Your task to perform on an android device: Clear all items from cart on ebay. Search for "lg ultragear" on ebay, select the first entry, add it to the cart, then select checkout. Image 0: 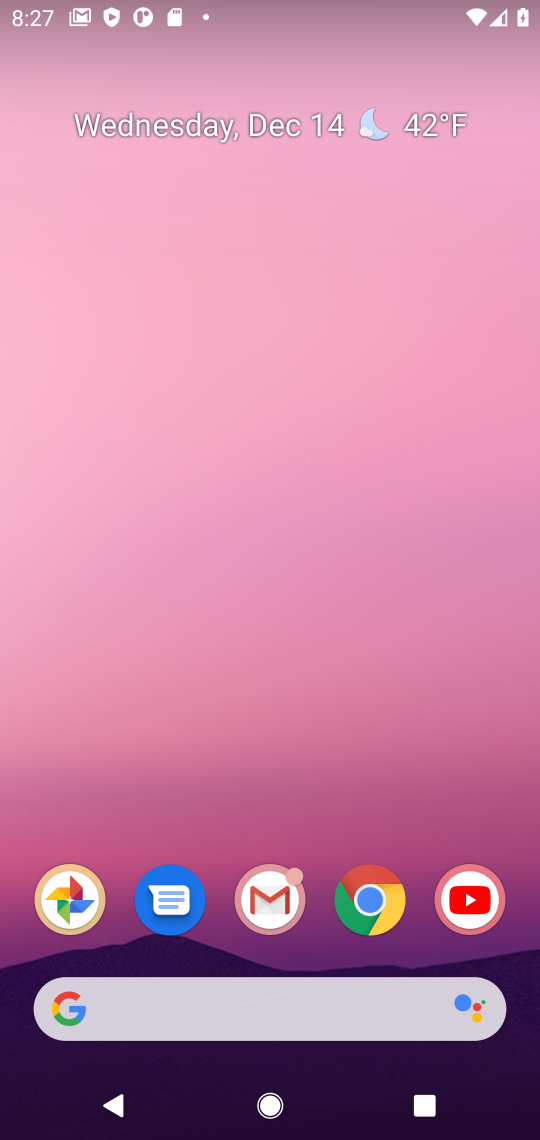
Step 0: click (369, 900)
Your task to perform on an android device: Clear all items from cart on ebay. Search for "lg ultragear" on ebay, select the first entry, add it to the cart, then select checkout. Image 1: 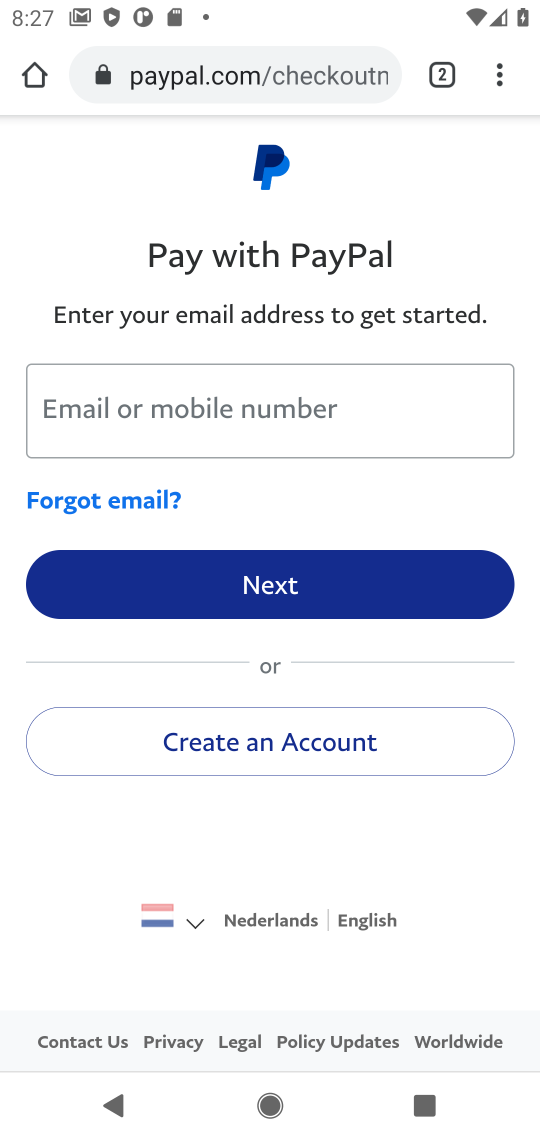
Step 1: click (211, 79)
Your task to perform on an android device: Clear all items from cart on ebay. Search for "lg ultragear" on ebay, select the first entry, add it to the cart, then select checkout. Image 2: 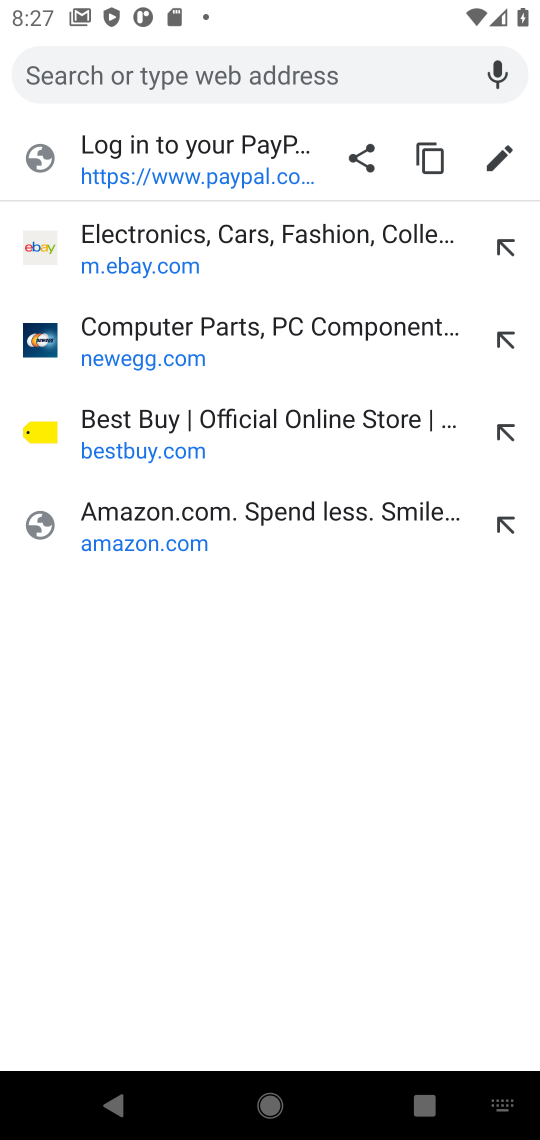
Step 2: click (145, 256)
Your task to perform on an android device: Clear all items from cart on ebay. Search for "lg ultragear" on ebay, select the first entry, add it to the cart, then select checkout. Image 3: 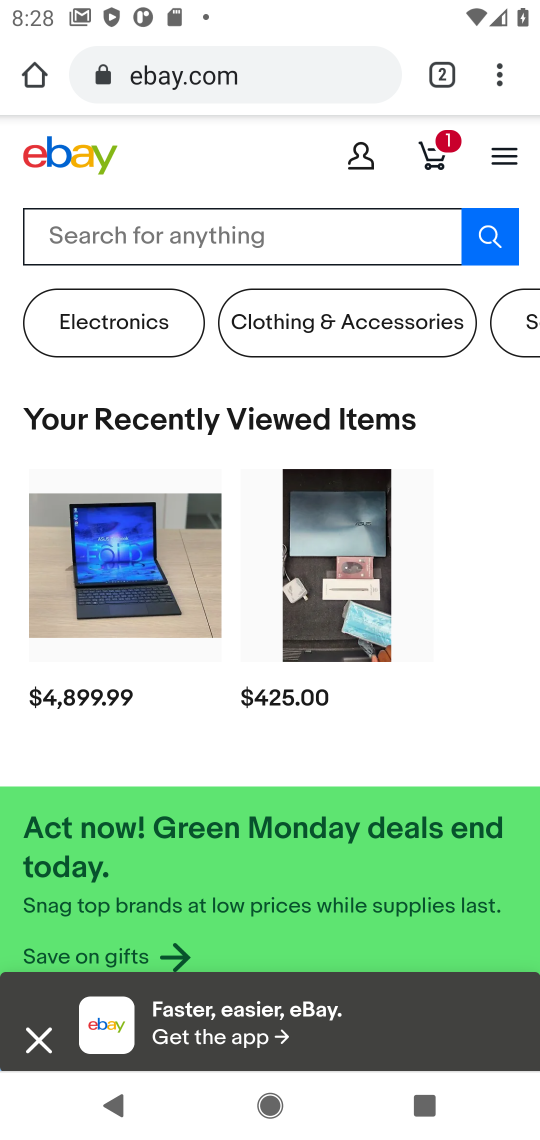
Step 3: click (430, 158)
Your task to perform on an android device: Clear all items from cart on ebay. Search for "lg ultragear" on ebay, select the first entry, add it to the cart, then select checkout. Image 4: 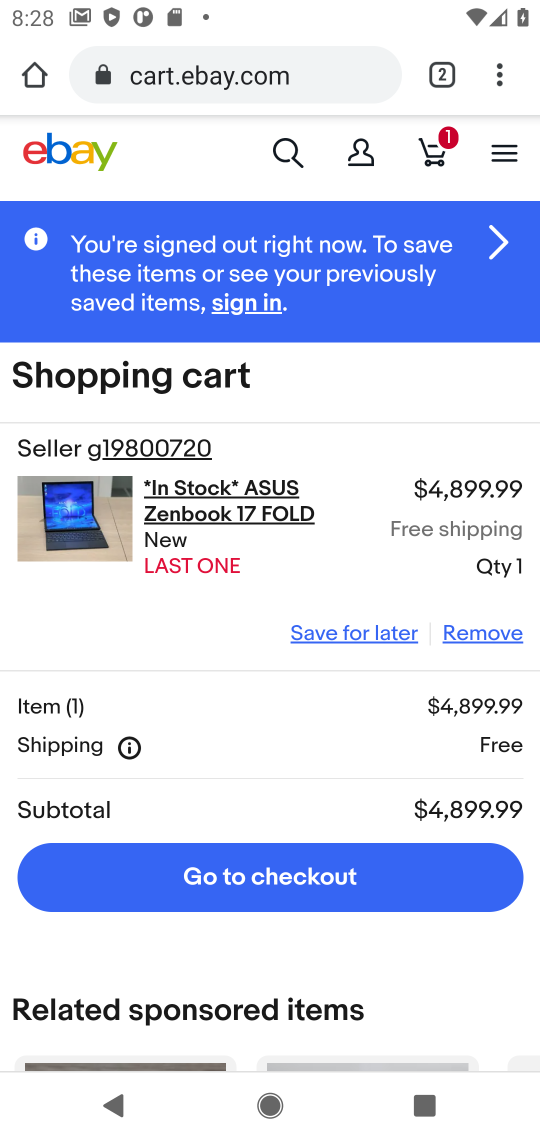
Step 4: click (493, 641)
Your task to perform on an android device: Clear all items from cart on ebay. Search for "lg ultragear" on ebay, select the first entry, add it to the cart, then select checkout. Image 5: 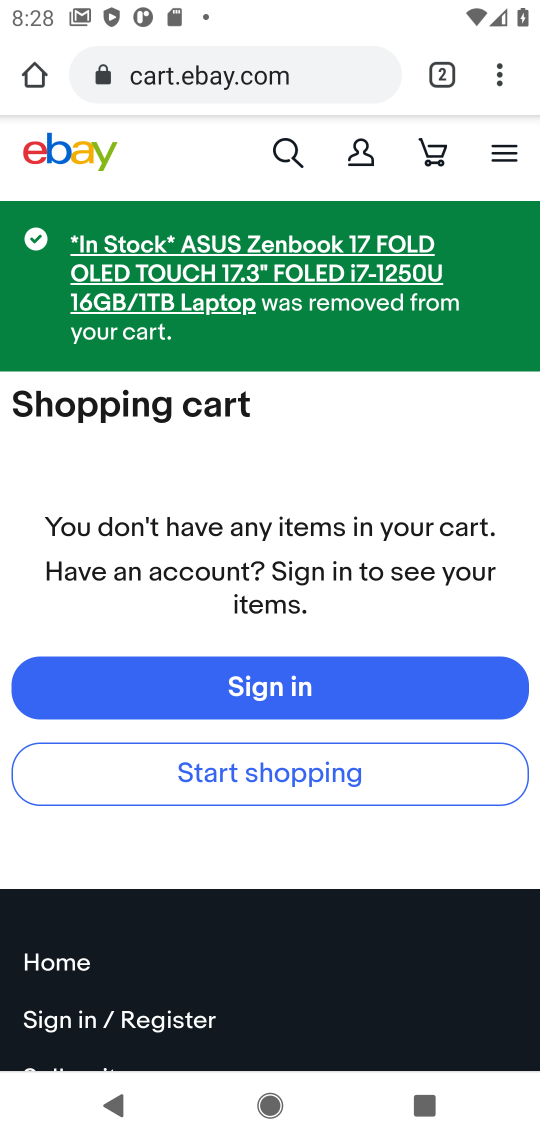
Step 5: click (279, 146)
Your task to perform on an android device: Clear all items from cart on ebay. Search for "lg ultragear" on ebay, select the first entry, add it to the cart, then select checkout. Image 6: 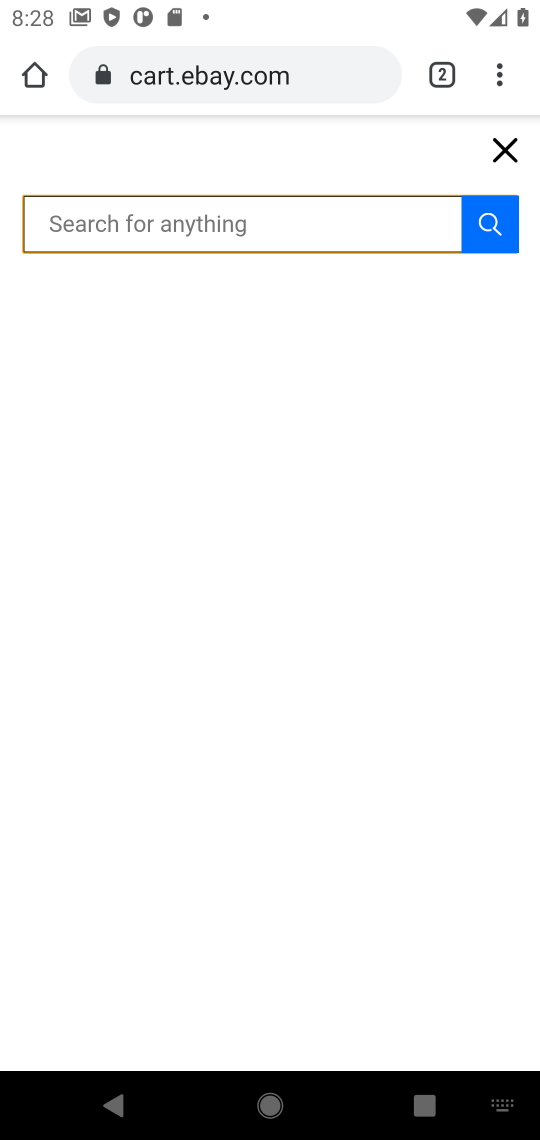
Step 6: type "lg ultragear"
Your task to perform on an android device: Clear all items from cart on ebay. Search for "lg ultragear" on ebay, select the first entry, add it to the cart, then select checkout. Image 7: 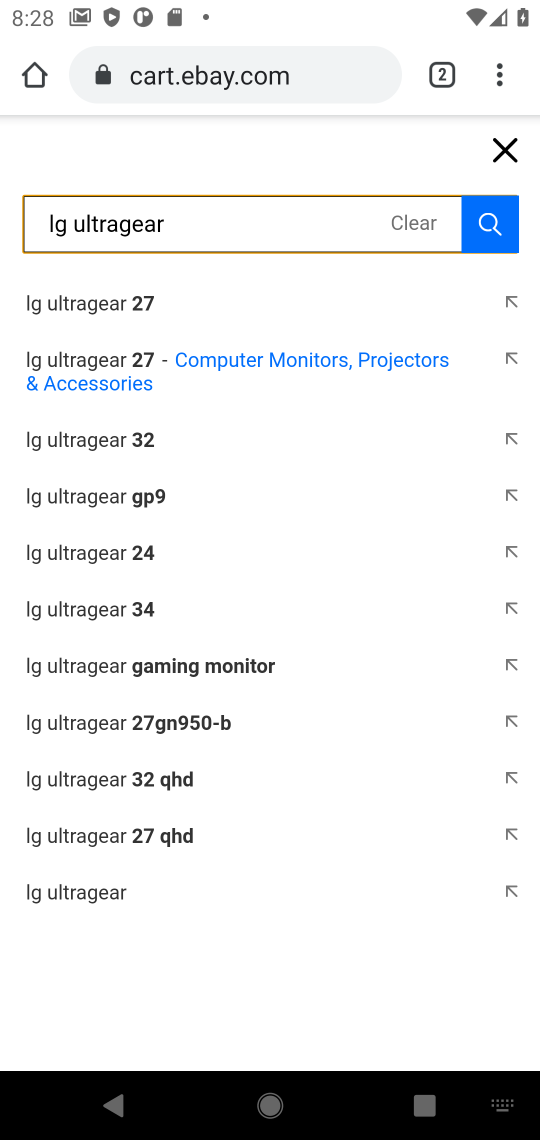
Step 7: click (74, 892)
Your task to perform on an android device: Clear all items from cart on ebay. Search for "lg ultragear" on ebay, select the first entry, add it to the cart, then select checkout. Image 8: 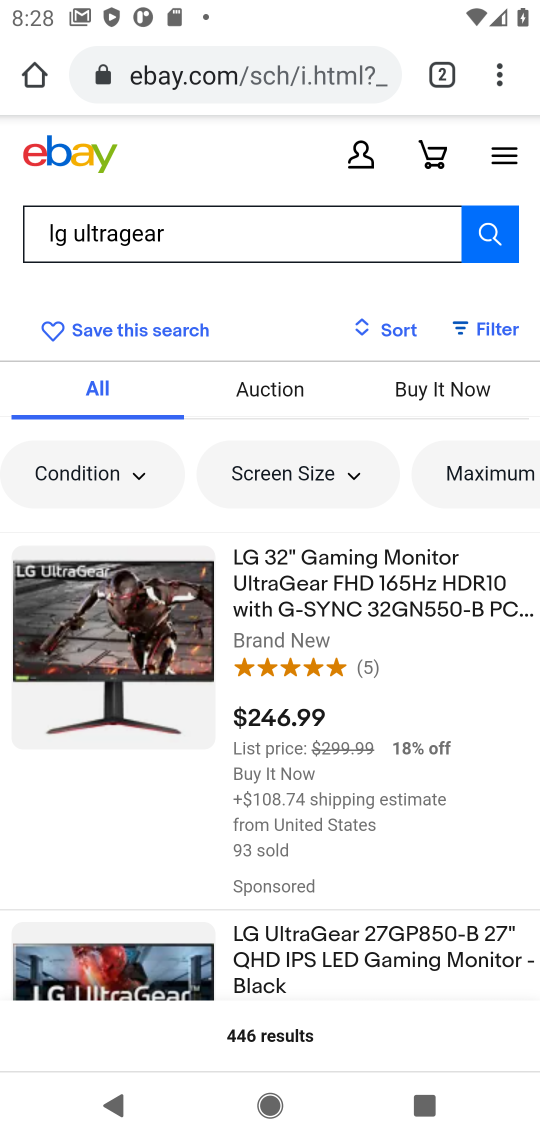
Step 8: click (295, 613)
Your task to perform on an android device: Clear all items from cart on ebay. Search for "lg ultragear" on ebay, select the first entry, add it to the cart, then select checkout. Image 9: 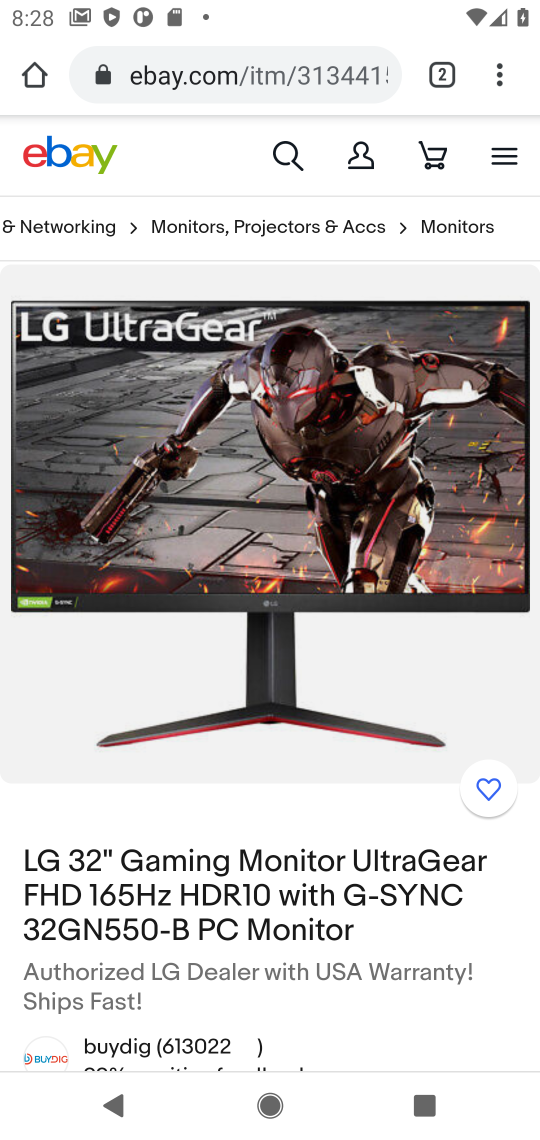
Step 9: drag from (246, 848) to (255, 168)
Your task to perform on an android device: Clear all items from cart on ebay. Search for "lg ultragear" on ebay, select the first entry, add it to the cart, then select checkout. Image 10: 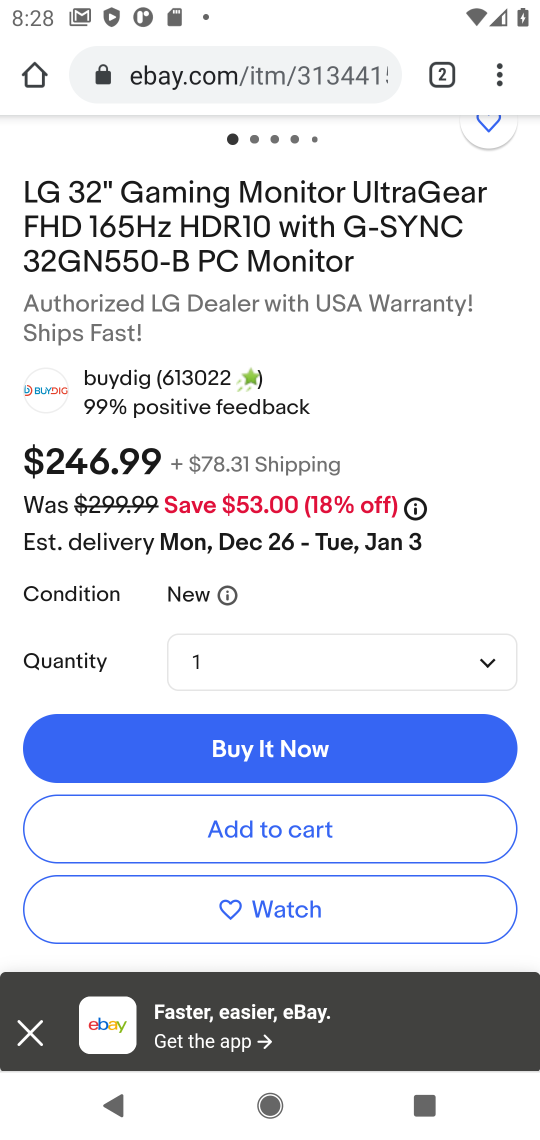
Step 10: click (226, 825)
Your task to perform on an android device: Clear all items from cart on ebay. Search for "lg ultragear" on ebay, select the first entry, add it to the cart, then select checkout. Image 11: 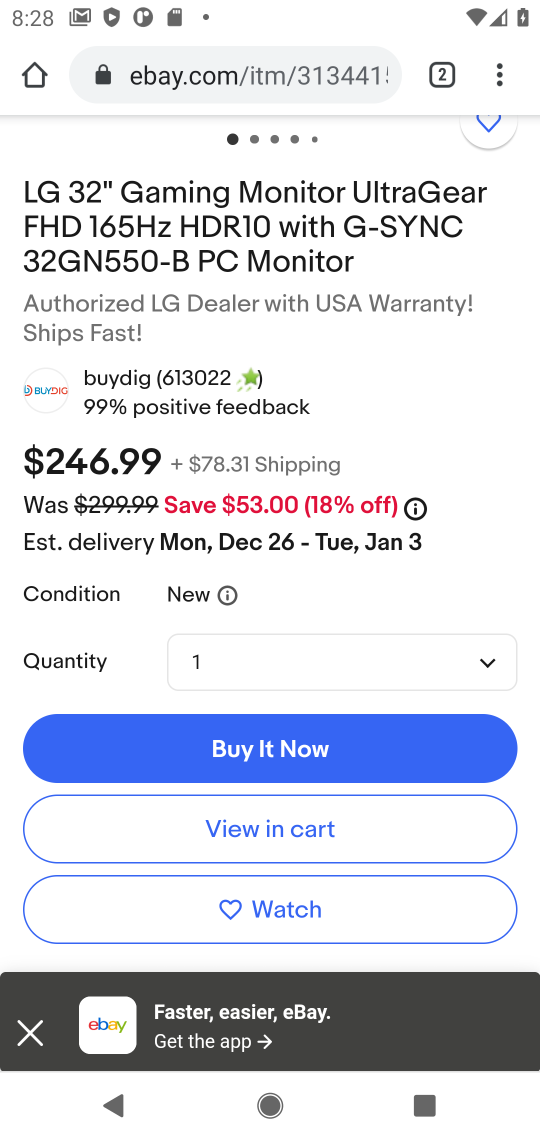
Step 11: click (226, 825)
Your task to perform on an android device: Clear all items from cart on ebay. Search for "lg ultragear" on ebay, select the first entry, add it to the cart, then select checkout. Image 12: 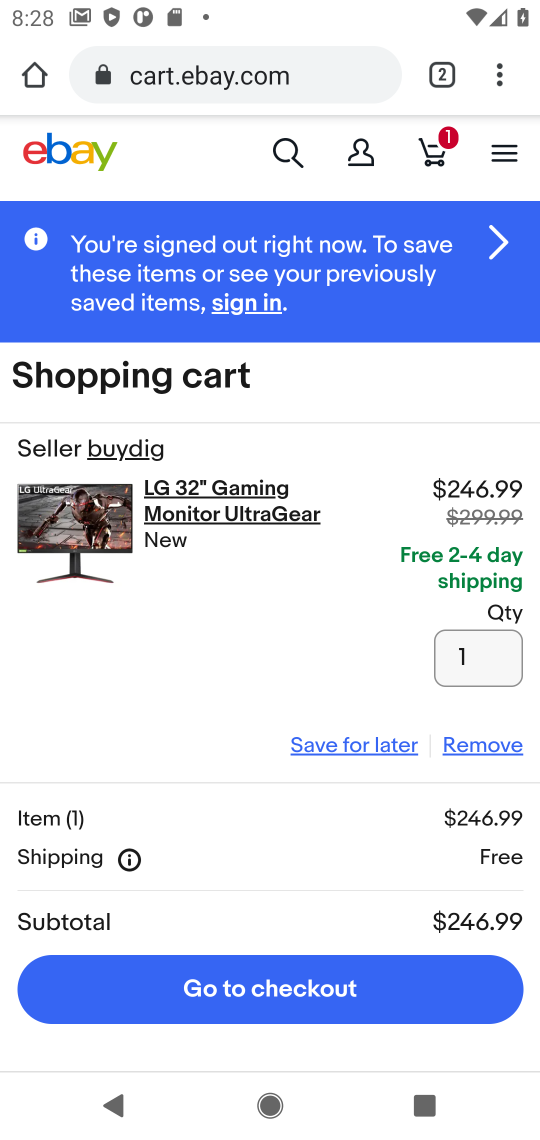
Step 12: click (248, 978)
Your task to perform on an android device: Clear all items from cart on ebay. Search for "lg ultragear" on ebay, select the first entry, add it to the cart, then select checkout. Image 13: 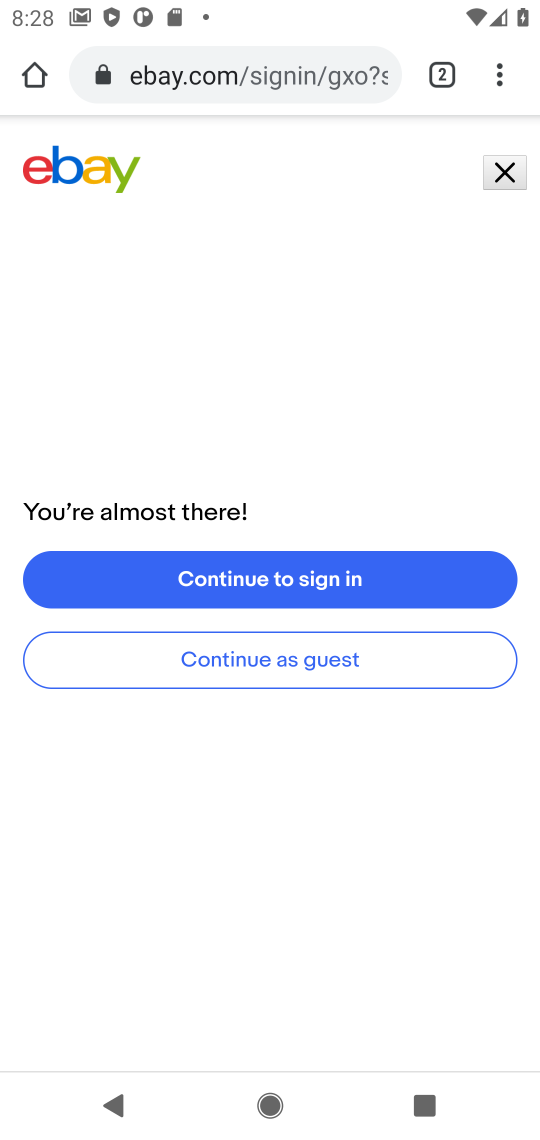
Step 13: task complete